Your task to perform on an android device: allow cookies in the chrome app Image 0: 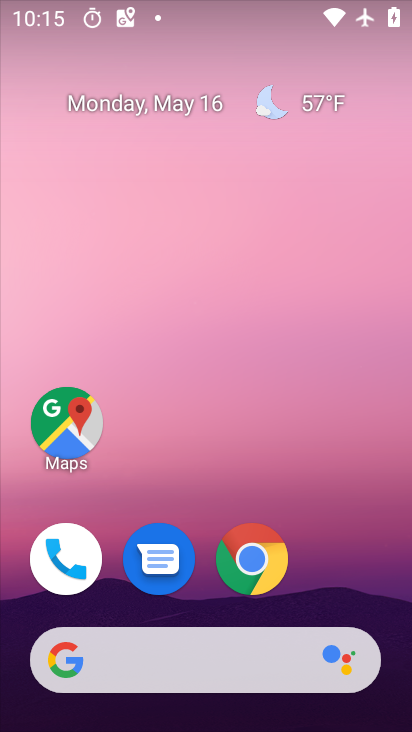
Step 0: click (254, 560)
Your task to perform on an android device: allow cookies in the chrome app Image 1: 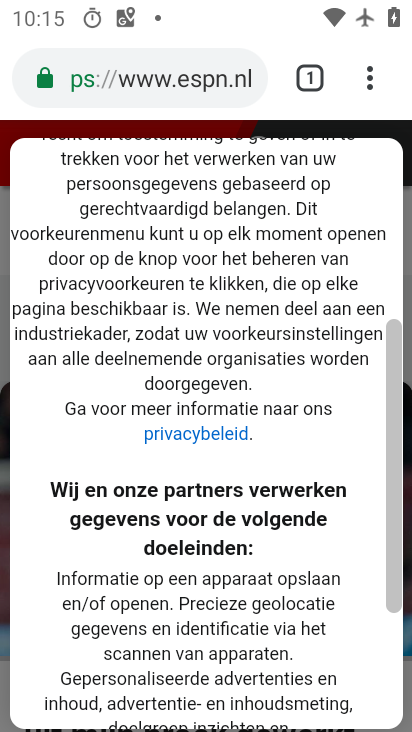
Step 1: drag from (360, 80) to (190, 613)
Your task to perform on an android device: allow cookies in the chrome app Image 2: 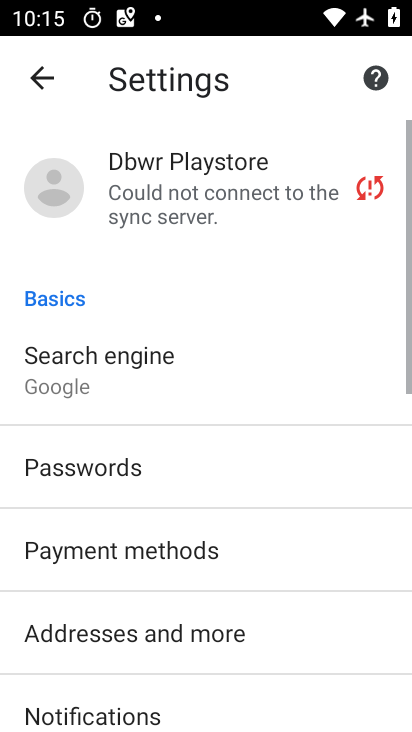
Step 2: drag from (200, 577) to (288, 65)
Your task to perform on an android device: allow cookies in the chrome app Image 3: 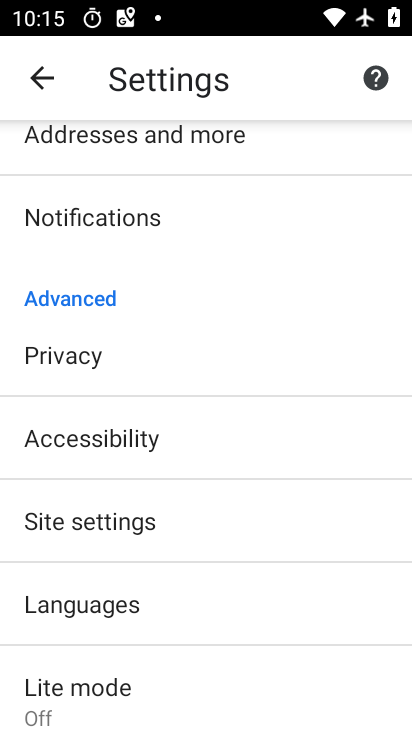
Step 3: drag from (185, 614) to (399, 151)
Your task to perform on an android device: allow cookies in the chrome app Image 4: 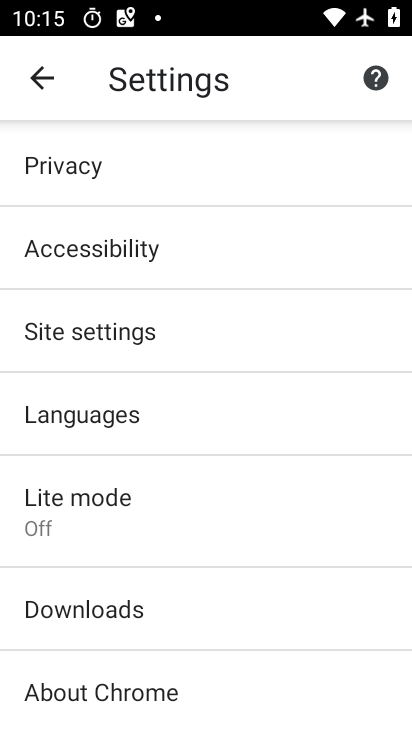
Step 4: click (174, 327)
Your task to perform on an android device: allow cookies in the chrome app Image 5: 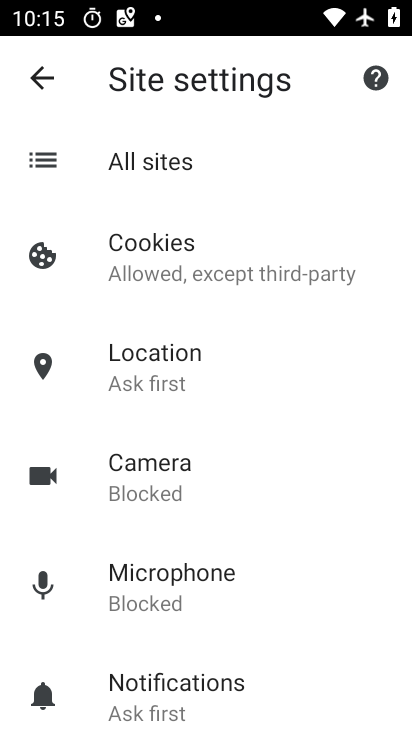
Step 5: drag from (240, 598) to (318, 127)
Your task to perform on an android device: allow cookies in the chrome app Image 6: 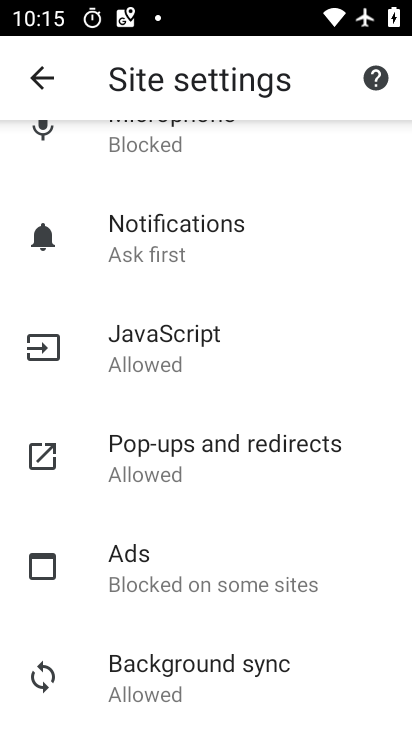
Step 6: drag from (152, 572) to (263, 279)
Your task to perform on an android device: allow cookies in the chrome app Image 7: 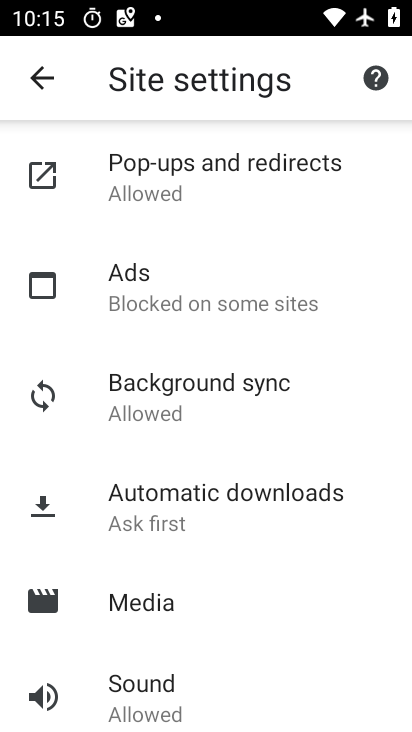
Step 7: drag from (233, 248) to (171, 699)
Your task to perform on an android device: allow cookies in the chrome app Image 8: 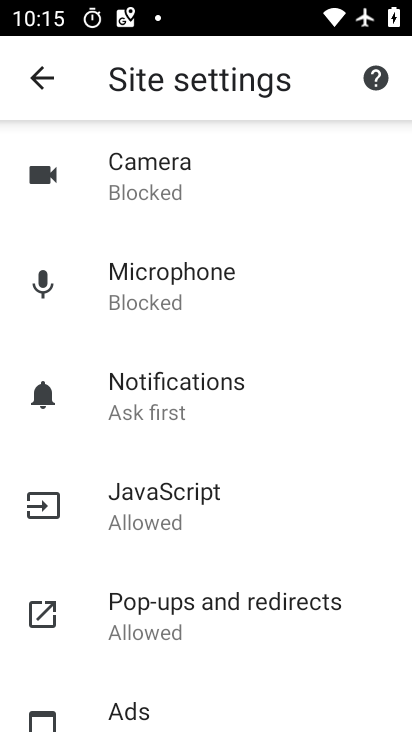
Step 8: drag from (201, 480) to (203, 713)
Your task to perform on an android device: allow cookies in the chrome app Image 9: 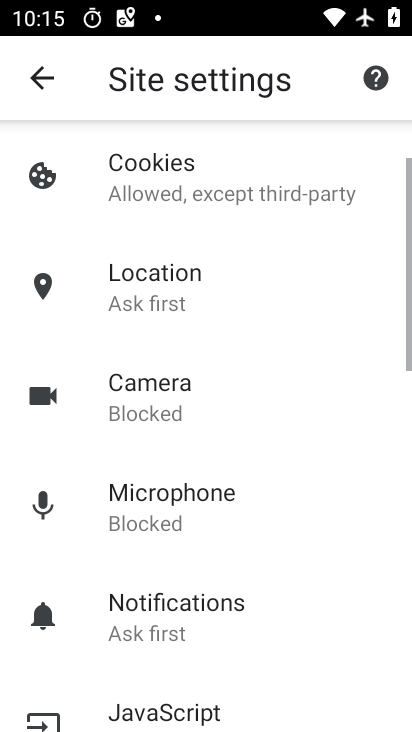
Step 9: click (207, 202)
Your task to perform on an android device: allow cookies in the chrome app Image 10: 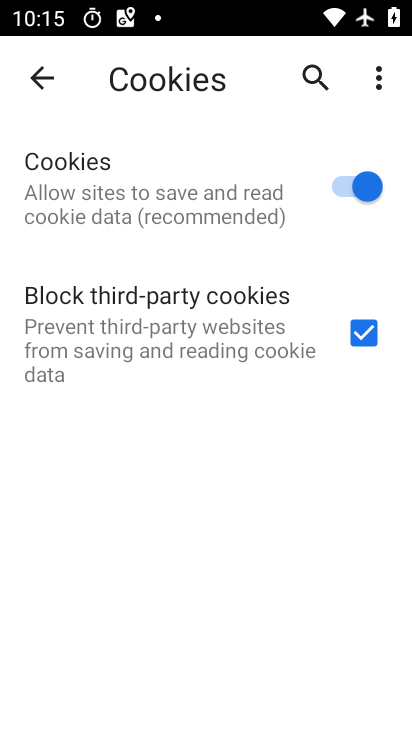
Step 10: task complete